Your task to perform on an android device: refresh tabs in the chrome app Image 0: 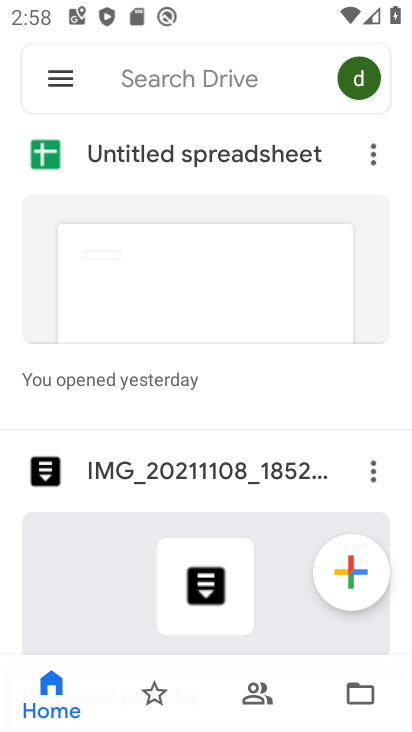
Step 0: drag from (245, 445) to (267, 4)
Your task to perform on an android device: refresh tabs in the chrome app Image 1: 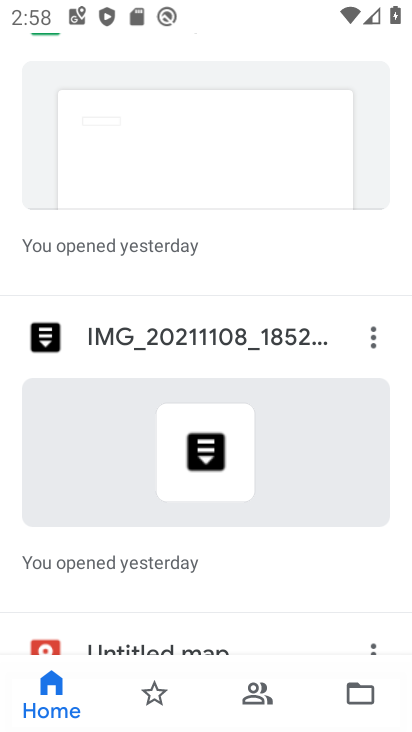
Step 1: drag from (279, 308) to (375, 680)
Your task to perform on an android device: refresh tabs in the chrome app Image 2: 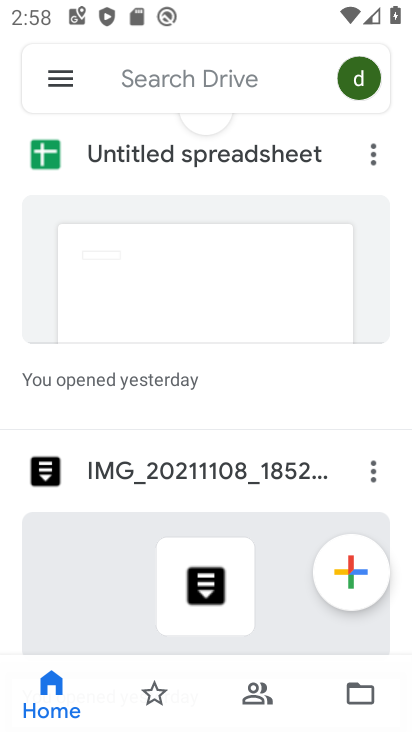
Step 2: press home button
Your task to perform on an android device: refresh tabs in the chrome app Image 3: 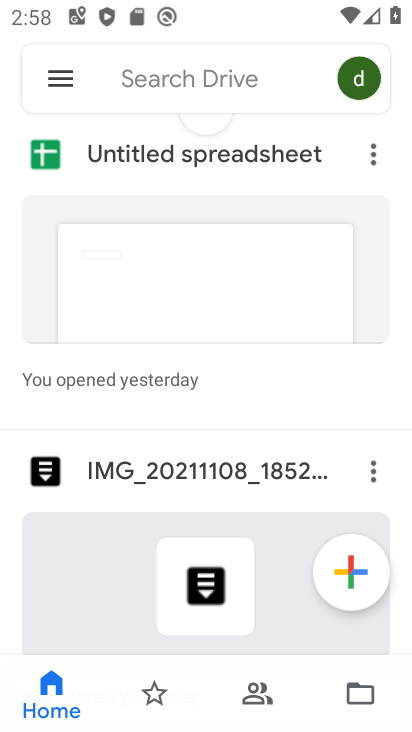
Step 3: click (410, 447)
Your task to perform on an android device: refresh tabs in the chrome app Image 4: 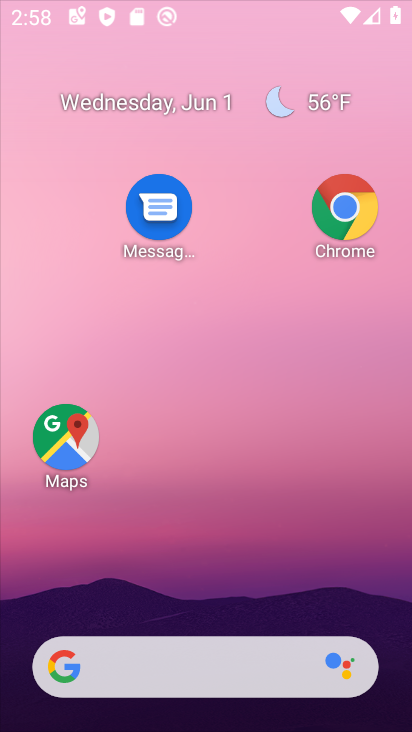
Step 4: drag from (227, 535) to (334, 75)
Your task to perform on an android device: refresh tabs in the chrome app Image 5: 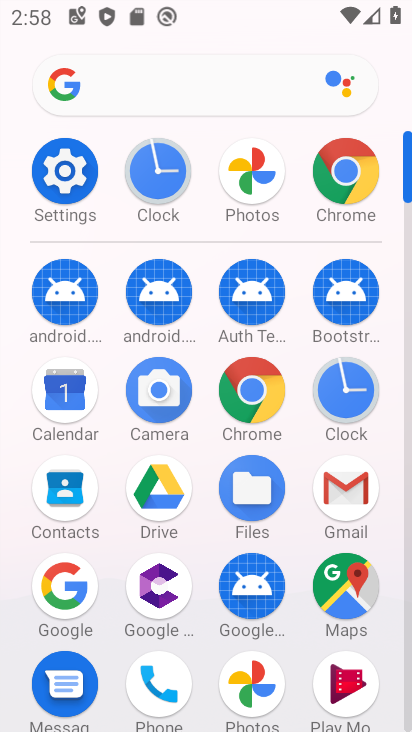
Step 5: click (340, 165)
Your task to perform on an android device: refresh tabs in the chrome app Image 6: 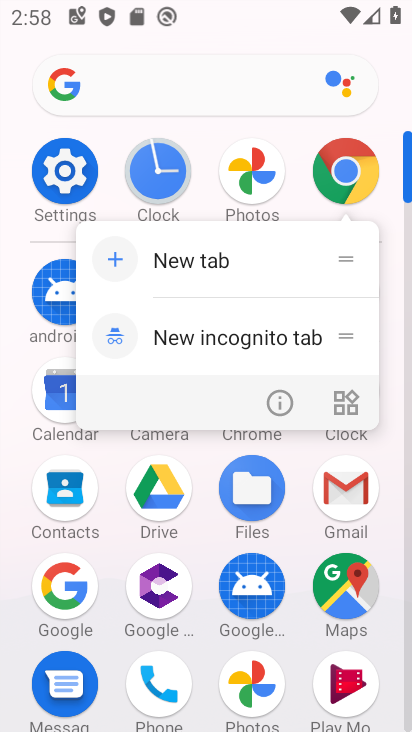
Step 6: click (289, 399)
Your task to perform on an android device: refresh tabs in the chrome app Image 7: 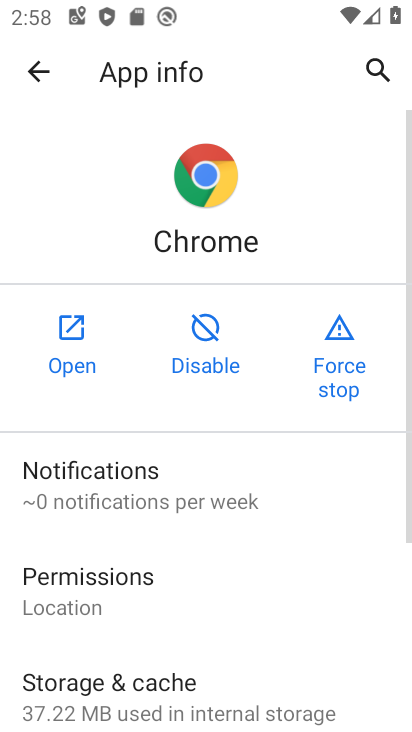
Step 7: click (67, 362)
Your task to perform on an android device: refresh tabs in the chrome app Image 8: 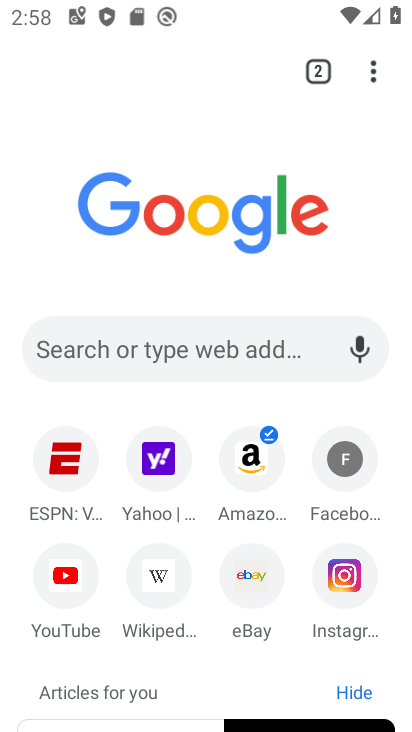
Step 8: click (376, 67)
Your task to perform on an android device: refresh tabs in the chrome app Image 9: 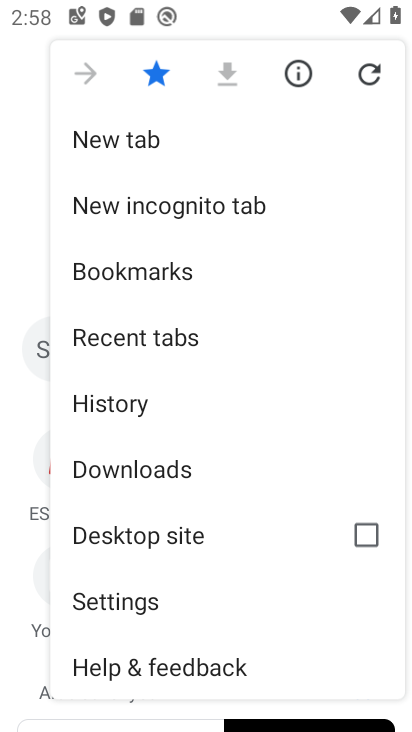
Step 9: click (384, 67)
Your task to perform on an android device: refresh tabs in the chrome app Image 10: 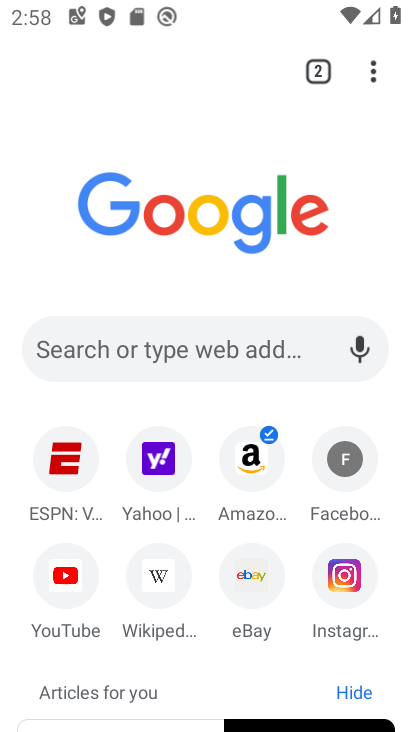
Step 10: task complete